Your task to perform on an android device: toggle notifications settings in the gmail app Image 0: 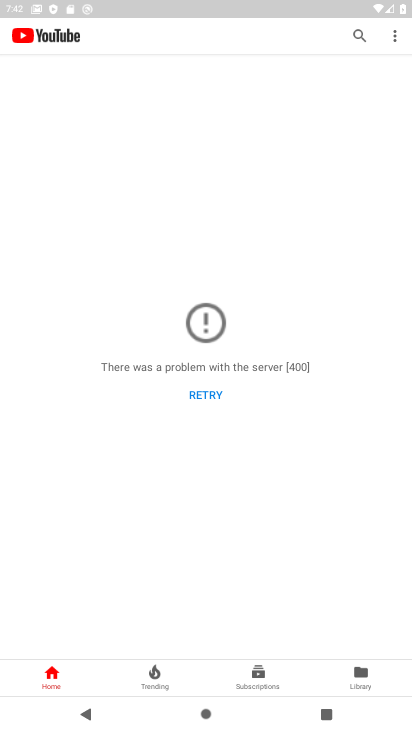
Step 0: press home button
Your task to perform on an android device: toggle notifications settings in the gmail app Image 1: 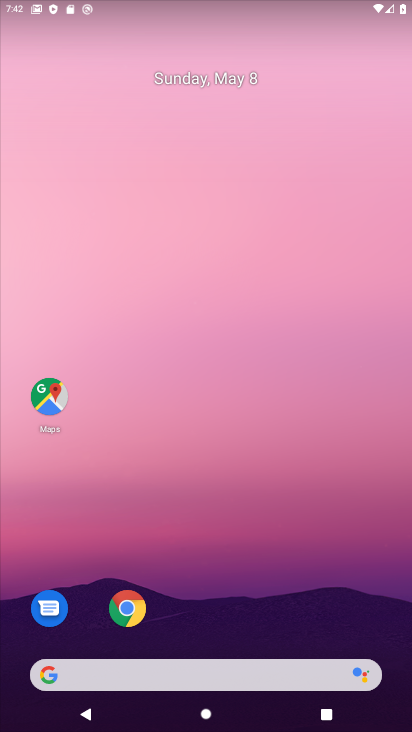
Step 1: drag from (301, 517) to (293, 118)
Your task to perform on an android device: toggle notifications settings in the gmail app Image 2: 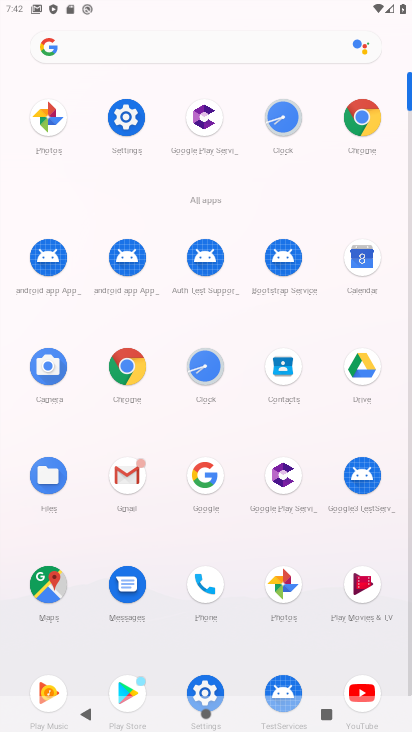
Step 2: click (119, 481)
Your task to perform on an android device: toggle notifications settings in the gmail app Image 3: 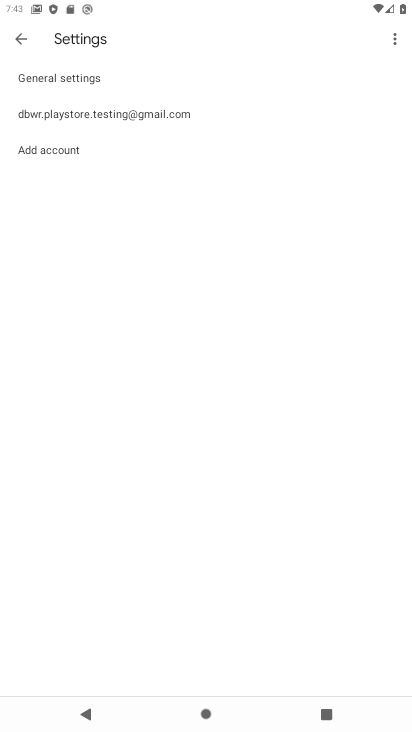
Step 3: click (24, 40)
Your task to perform on an android device: toggle notifications settings in the gmail app Image 4: 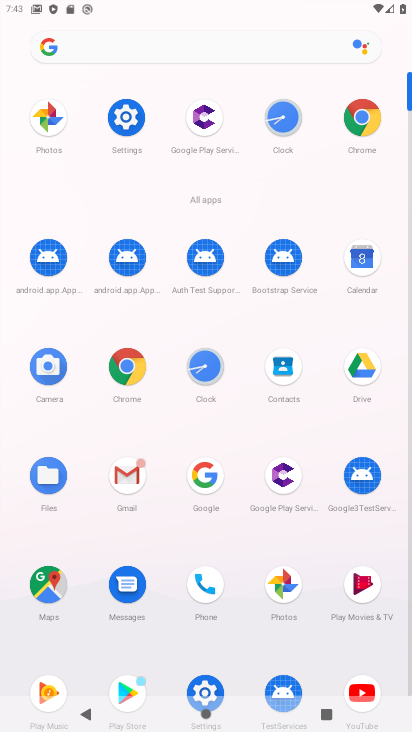
Step 4: click (135, 476)
Your task to perform on an android device: toggle notifications settings in the gmail app Image 5: 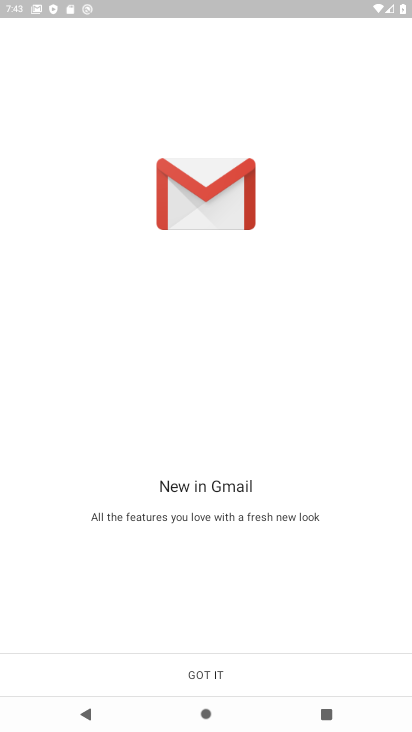
Step 5: click (199, 675)
Your task to perform on an android device: toggle notifications settings in the gmail app Image 6: 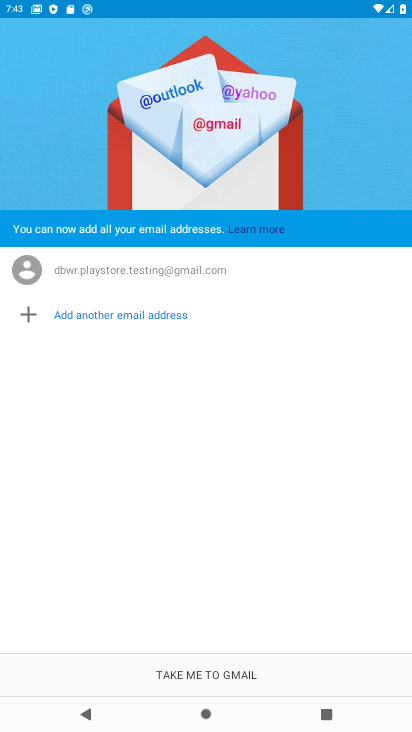
Step 6: click (201, 675)
Your task to perform on an android device: toggle notifications settings in the gmail app Image 7: 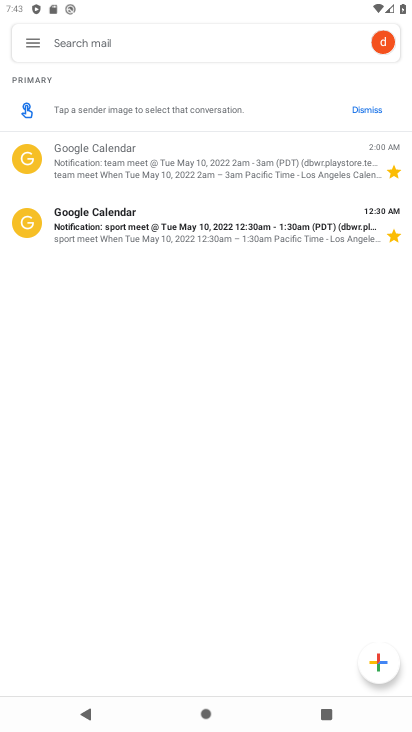
Step 7: click (35, 40)
Your task to perform on an android device: toggle notifications settings in the gmail app Image 8: 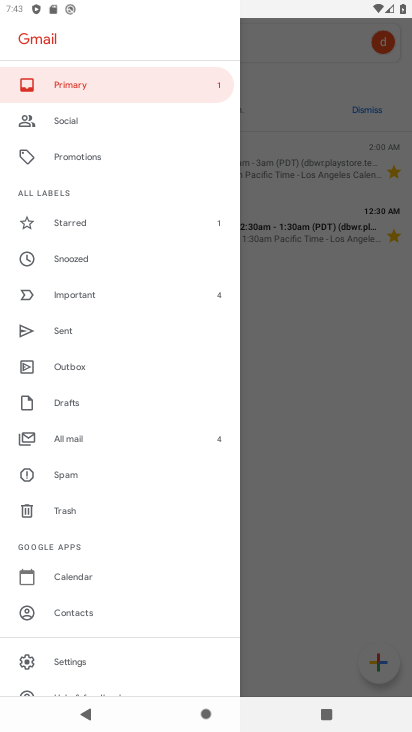
Step 8: click (78, 659)
Your task to perform on an android device: toggle notifications settings in the gmail app Image 9: 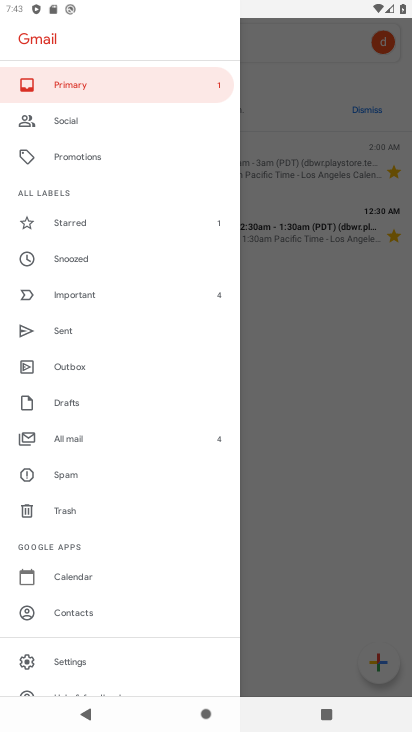
Step 9: click (65, 661)
Your task to perform on an android device: toggle notifications settings in the gmail app Image 10: 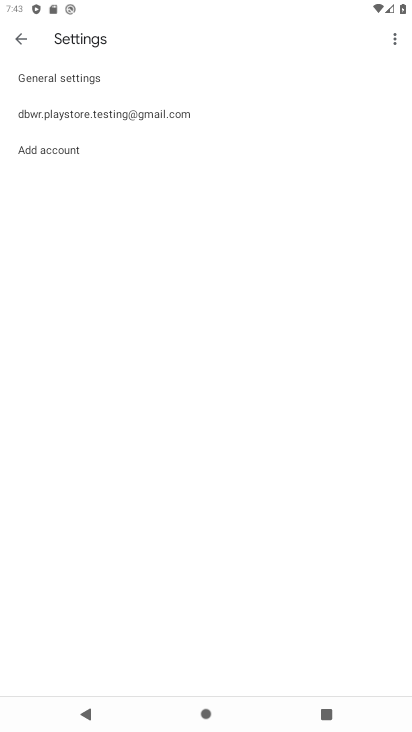
Step 10: click (102, 113)
Your task to perform on an android device: toggle notifications settings in the gmail app Image 11: 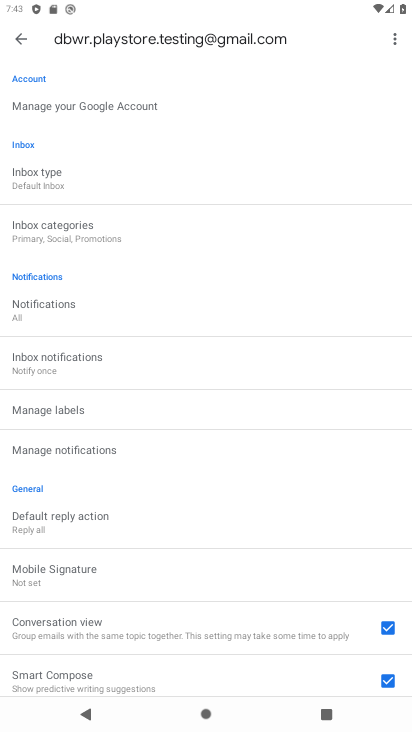
Step 11: click (47, 315)
Your task to perform on an android device: toggle notifications settings in the gmail app Image 12: 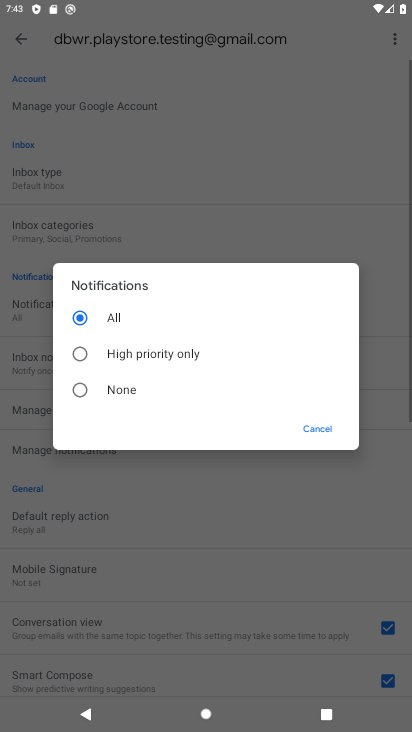
Step 12: click (177, 355)
Your task to perform on an android device: toggle notifications settings in the gmail app Image 13: 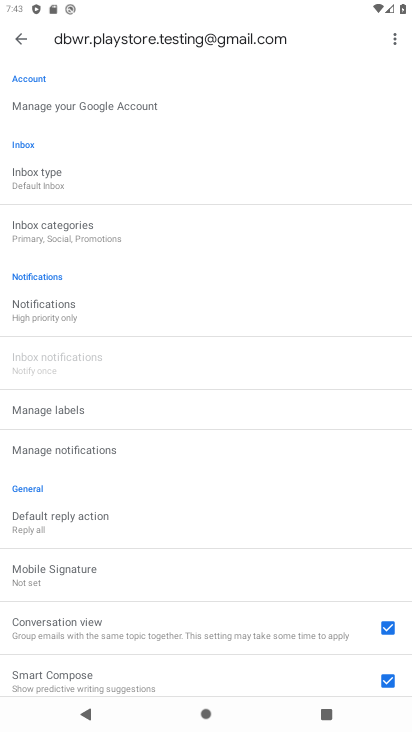
Step 13: task complete